Your task to perform on an android device: What's the weather today? Image 0: 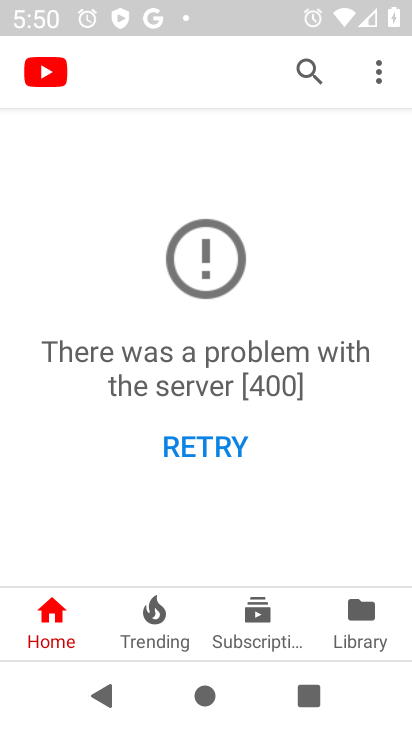
Step 0: press home button
Your task to perform on an android device: What's the weather today? Image 1: 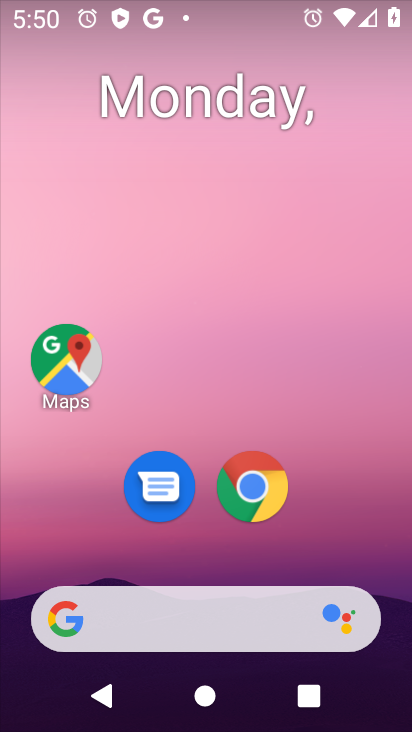
Step 1: click (219, 475)
Your task to perform on an android device: What's the weather today? Image 2: 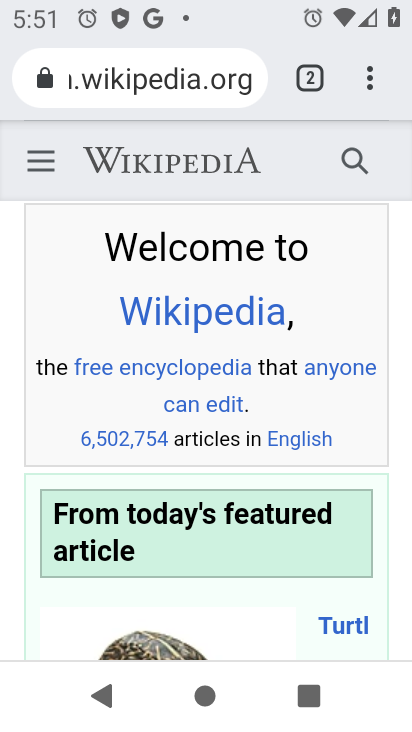
Step 2: task complete